Your task to perform on an android device: visit the assistant section in the google photos Image 0: 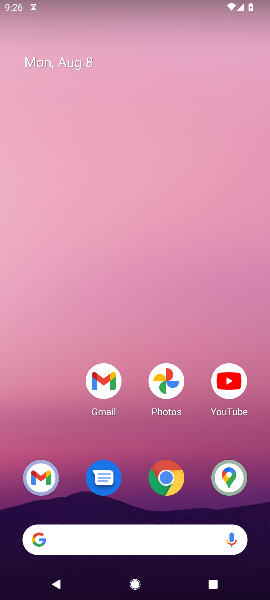
Step 0: drag from (131, 547) to (225, 155)
Your task to perform on an android device: visit the assistant section in the google photos Image 1: 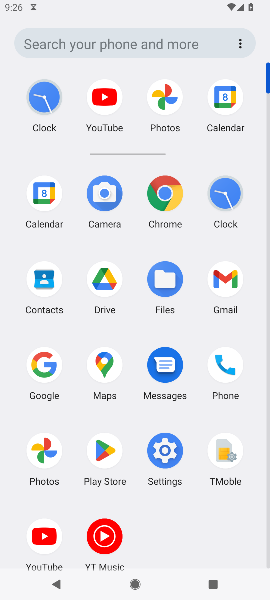
Step 1: click (36, 452)
Your task to perform on an android device: visit the assistant section in the google photos Image 2: 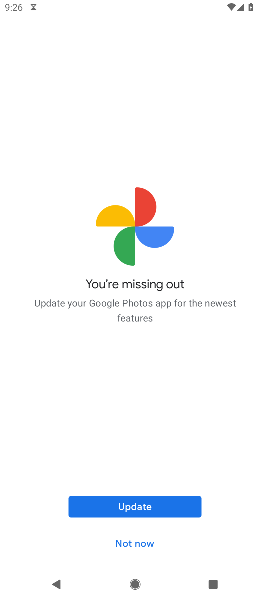
Step 2: click (146, 512)
Your task to perform on an android device: visit the assistant section in the google photos Image 3: 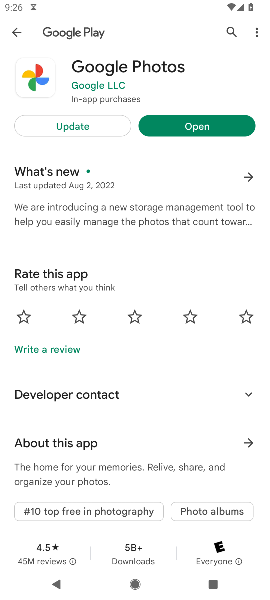
Step 3: click (66, 122)
Your task to perform on an android device: visit the assistant section in the google photos Image 4: 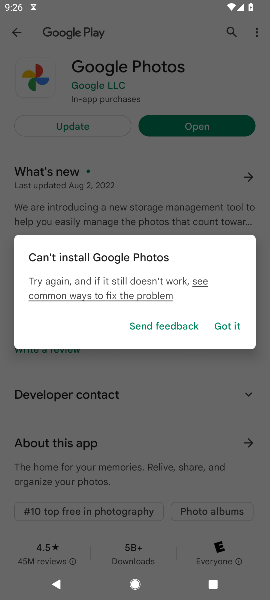
Step 4: click (225, 328)
Your task to perform on an android device: visit the assistant section in the google photos Image 5: 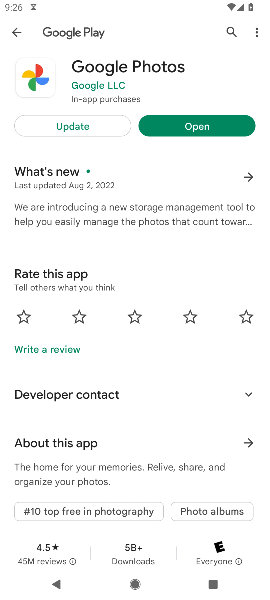
Step 5: task complete